Your task to perform on an android device: turn on the 24-hour format for clock Image 0: 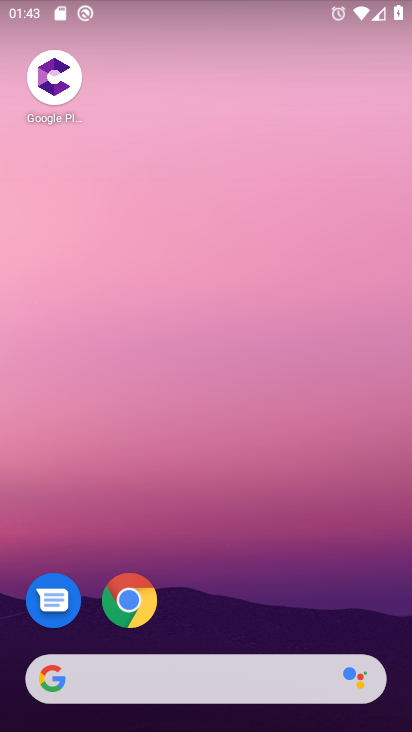
Step 0: drag from (265, 602) to (371, 102)
Your task to perform on an android device: turn on the 24-hour format for clock Image 1: 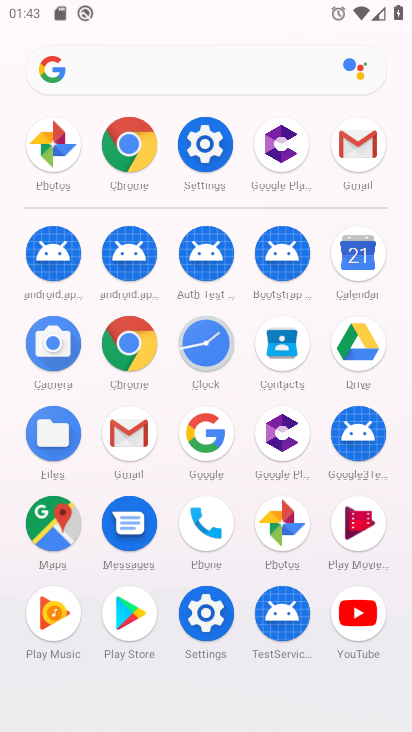
Step 1: click (203, 342)
Your task to perform on an android device: turn on the 24-hour format for clock Image 2: 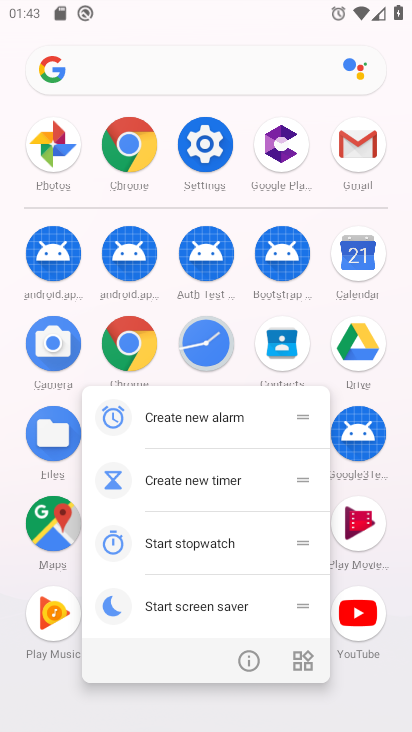
Step 2: click (203, 344)
Your task to perform on an android device: turn on the 24-hour format for clock Image 3: 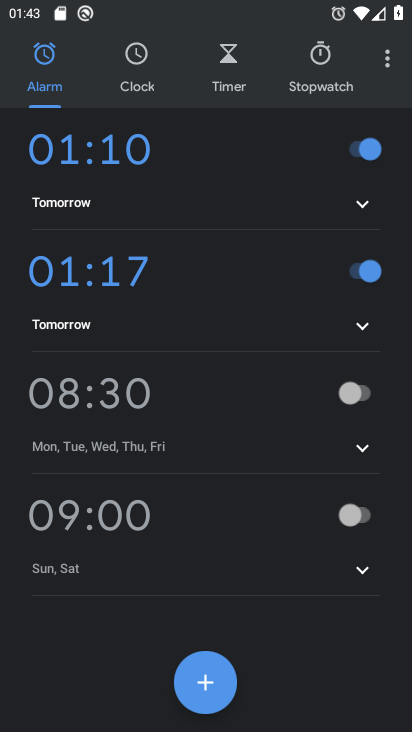
Step 3: click (386, 65)
Your task to perform on an android device: turn on the 24-hour format for clock Image 4: 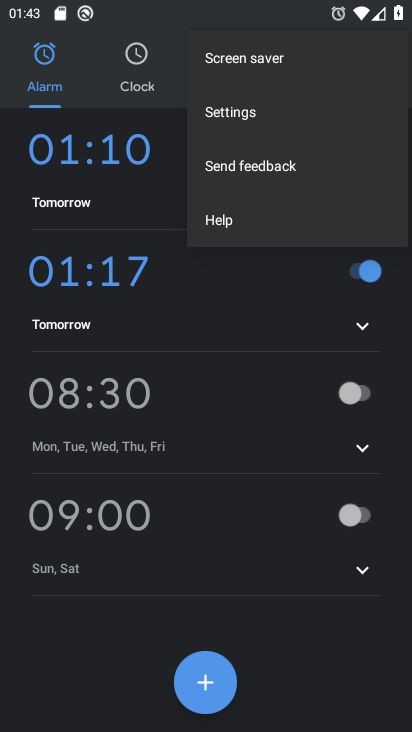
Step 4: click (295, 110)
Your task to perform on an android device: turn on the 24-hour format for clock Image 5: 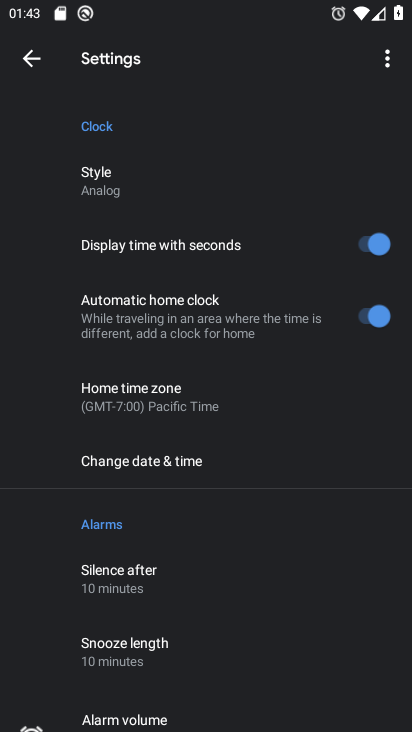
Step 5: click (256, 464)
Your task to perform on an android device: turn on the 24-hour format for clock Image 6: 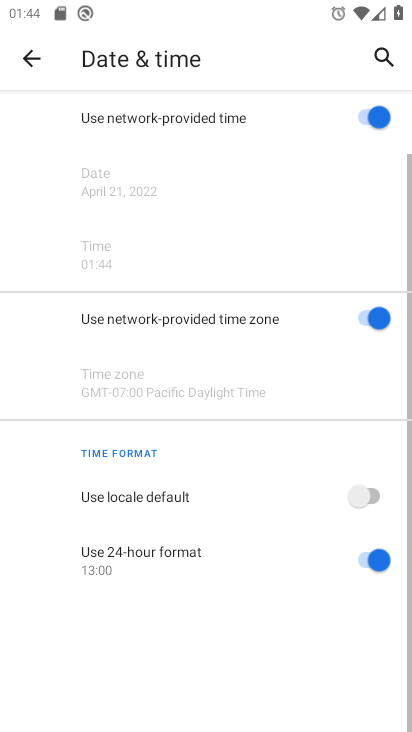
Step 6: task complete